Your task to perform on an android device: turn pop-ups on in chrome Image 0: 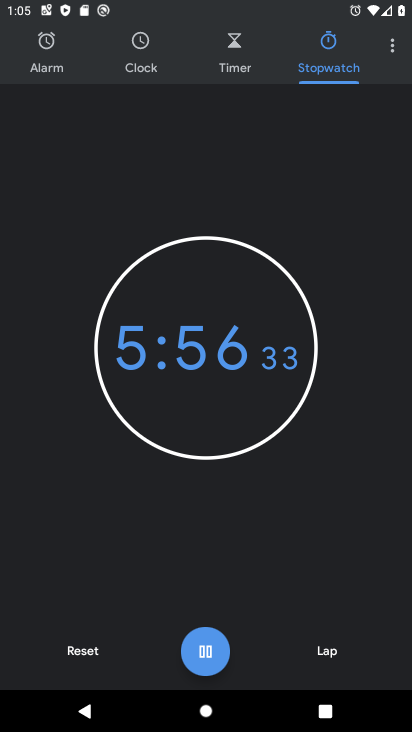
Step 0: press home button
Your task to perform on an android device: turn pop-ups on in chrome Image 1: 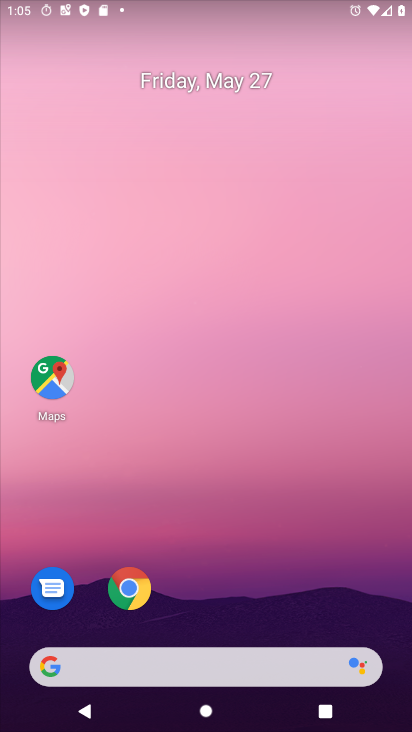
Step 1: drag from (225, 595) to (214, 32)
Your task to perform on an android device: turn pop-ups on in chrome Image 2: 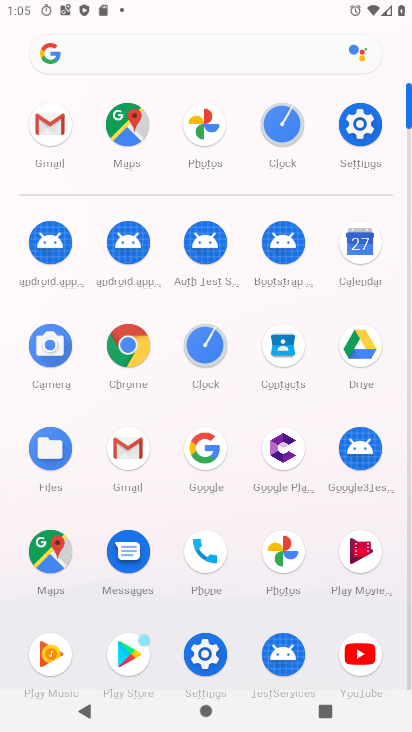
Step 2: click (126, 344)
Your task to perform on an android device: turn pop-ups on in chrome Image 3: 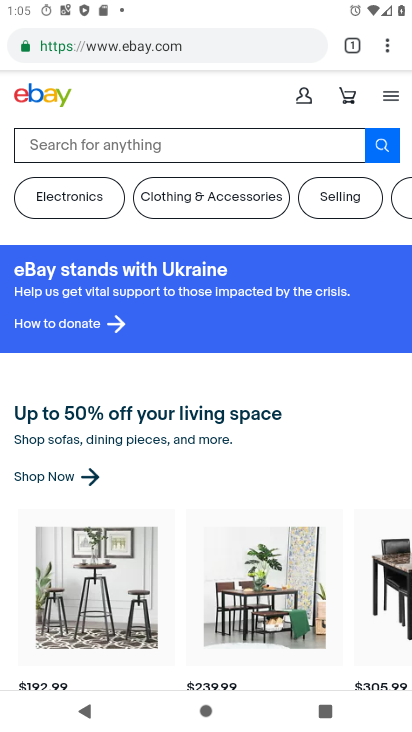
Step 3: click (379, 38)
Your task to perform on an android device: turn pop-ups on in chrome Image 4: 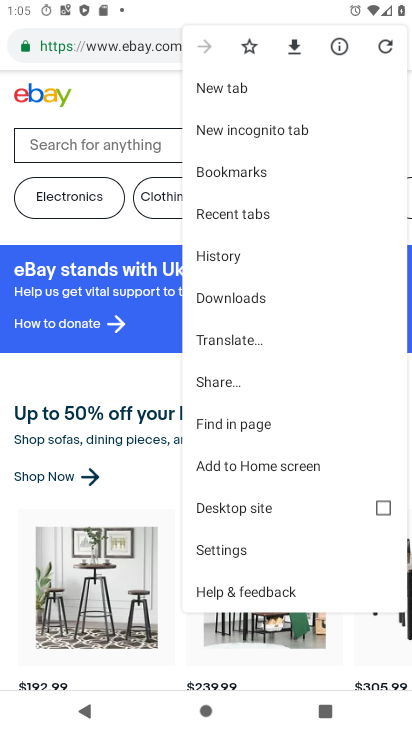
Step 4: click (249, 541)
Your task to perform on an android device: turn pop-ups on in chrome Image 5: 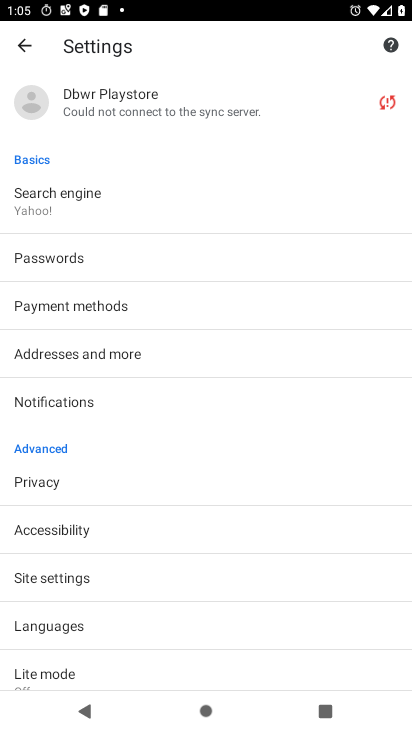
Step 5: drag from (124, 653) to (127, 151)
Your task to perform on an android device: turn pop-ups on in chrome Image 6: 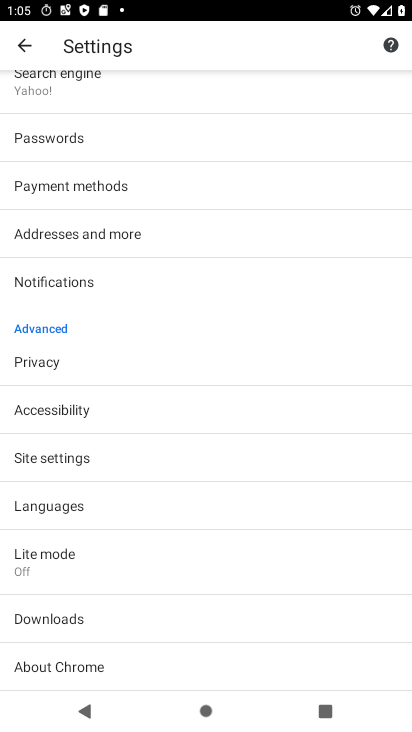
Step 6: click (102, 443)
Your task to perform on an android device: turn pop-ups on in chrome Image 7: 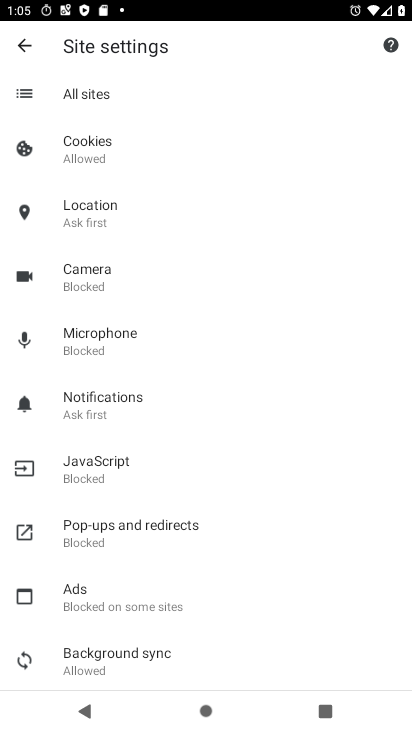
Step 7: click (157, 533)
Your task to perform on an android device: turn pop-ups on in chrome Image 8: 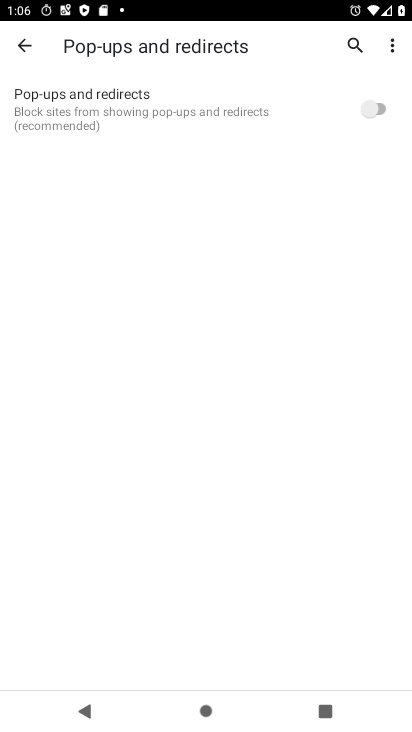
Step 8: click (377, 102)
Your task to perform on an android device: turn pop-ups on in chrome Image 9: 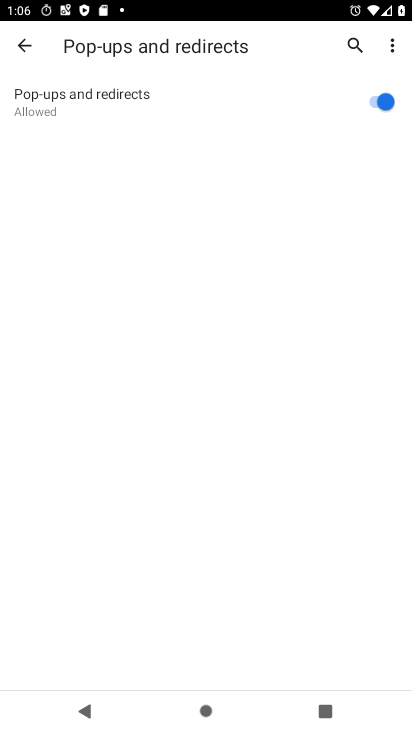
Step 9: task complete